Your task to perform on an android device: What's the weather today? Image 0: 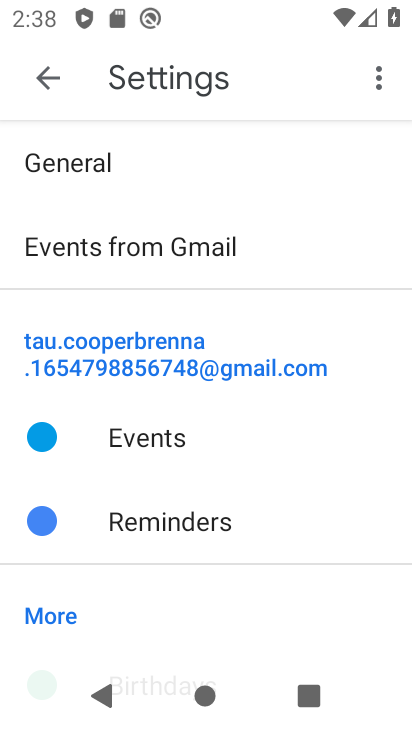
Step 0: press home button
Your task to perform on an android device: What's the weather today? Image 1: 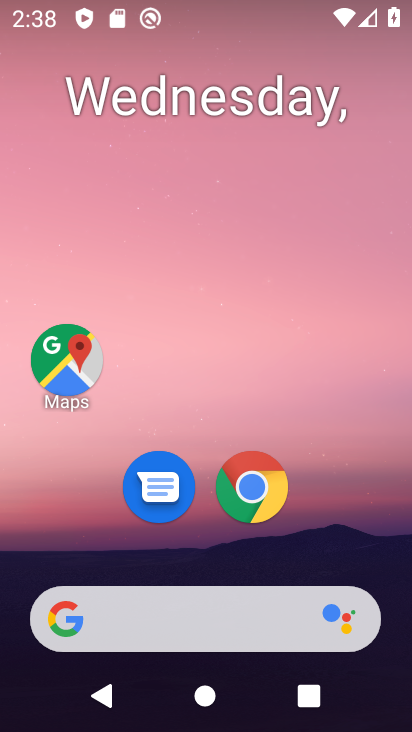
Step 1: drag from (240, 624) to (238, 142)
Your task to perform on an android device: What's the weather today? Image 2: 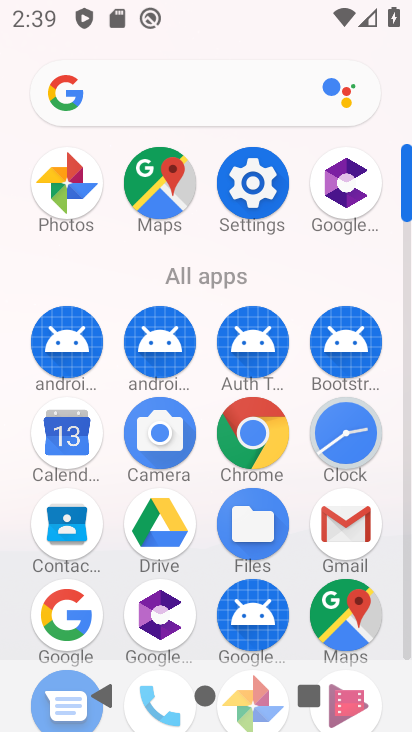
Step 2: click (83, 609)
Your task to perform on an android device: What's the weather today? Image 3: 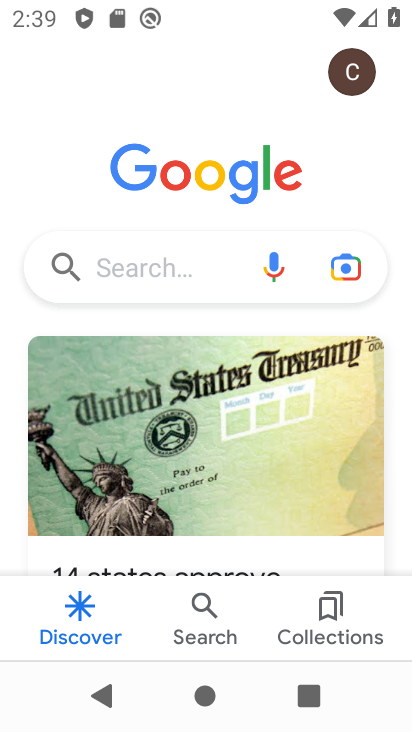
Step 3: click (177, 281)
Your task to perform on an android device: What's the weather today? Image 4: 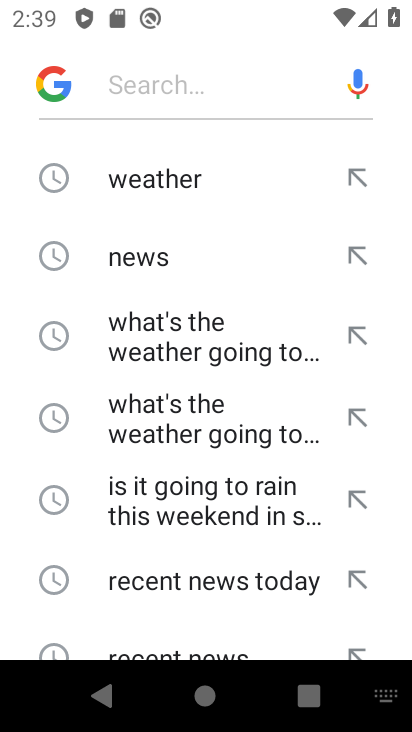
Step 4: click (191, 179)
Your task to perform on an android device: What's the weather today? Image 5: 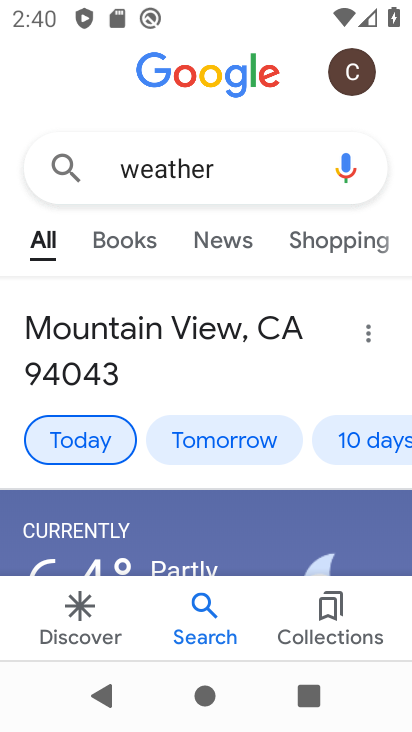
Step 5: task complete